Your task to perform on an android device: Open Google Image 0: 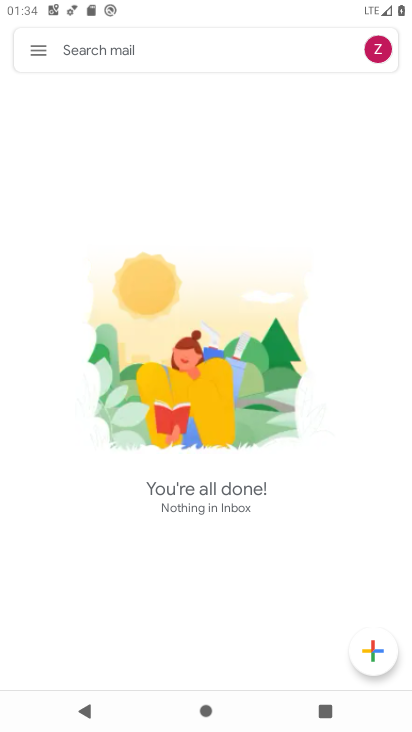
Step 0: press home button
Your task to perform on an android device: Open Google Image 1: 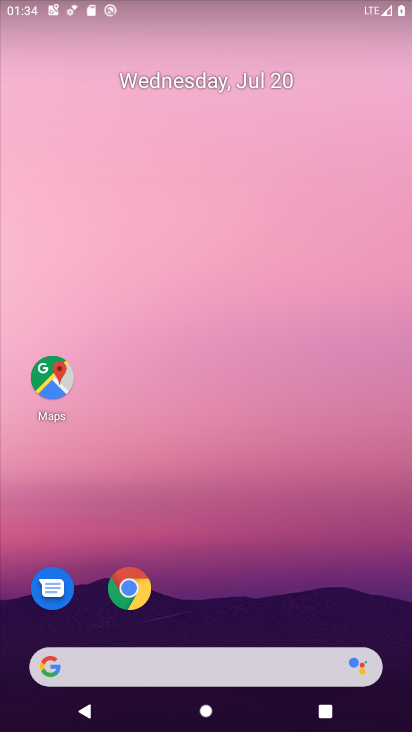
Step 1: drag from (294, 567) to (306, 397)
Your task to perform on an android device: Open Google Image 2: 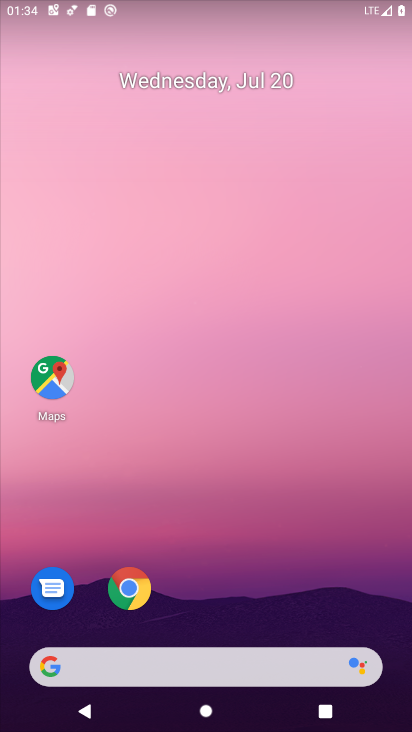
Step 2: drag from (243, 628) to (246, 291)
Your task to perform on an android device: Open Google Image 3: 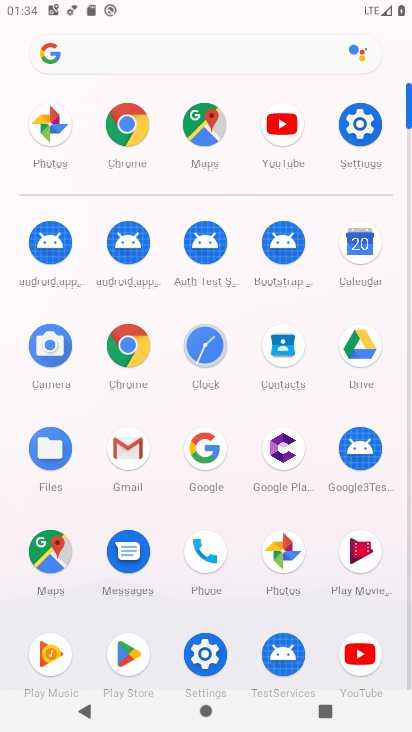
Step 3: click (201, 444)
Your task to perform on an android device: Open Google Image 4: 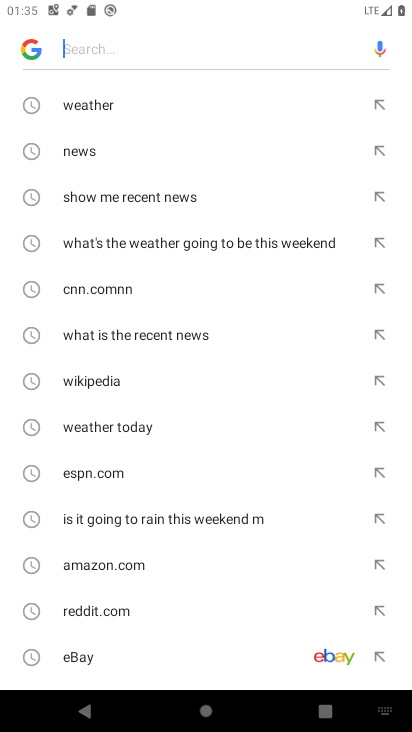
Step 4: task complete